Your task to perform on an android device: open app "Skype" (install if not already installed) and enter user name: "rumor@gmail.com" and password: "kinsman" Image 0: 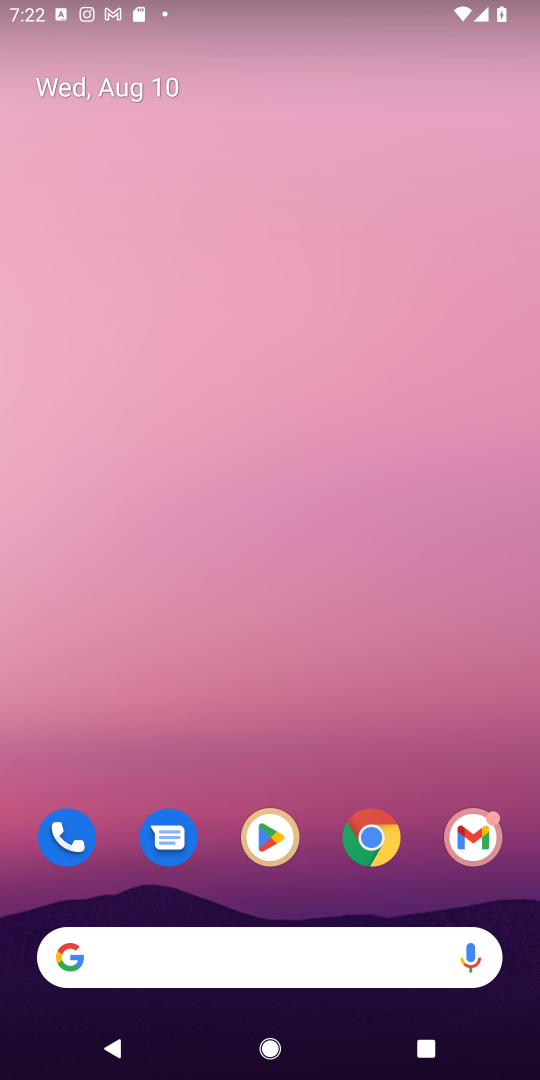
Step 0: press home button
Your task to perform on an android device: open app "Skype" (install if not already installed) and enter user name: "rumor@gmail.com" and password: "kinsman" Image 1: 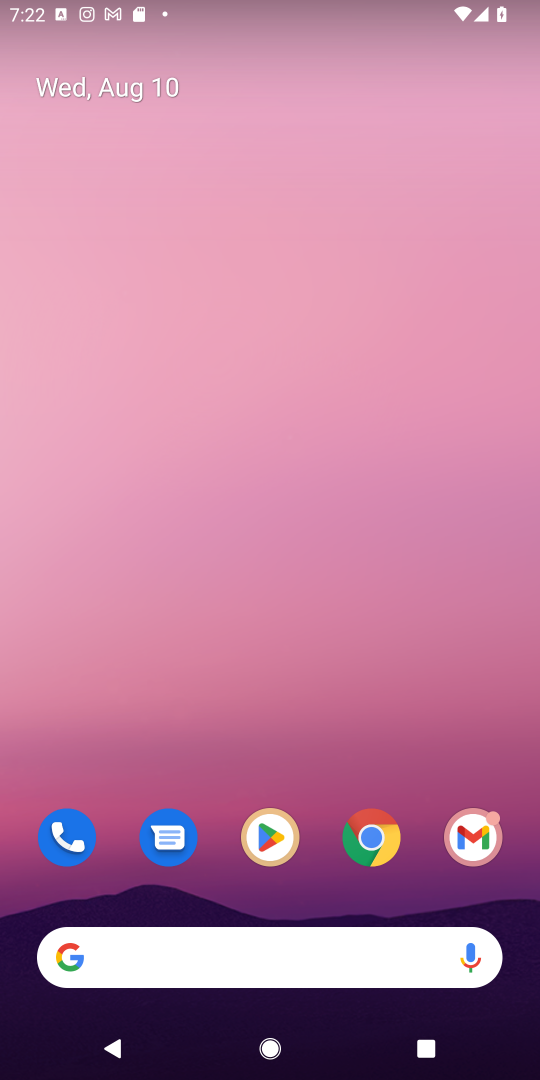
Step 1: click (261, 832)
Your task to perform on an android device: open app "Skype" (install if not already installed) and enter user name: "rumor@gmail.com" and password: "kinsman" Image 2: 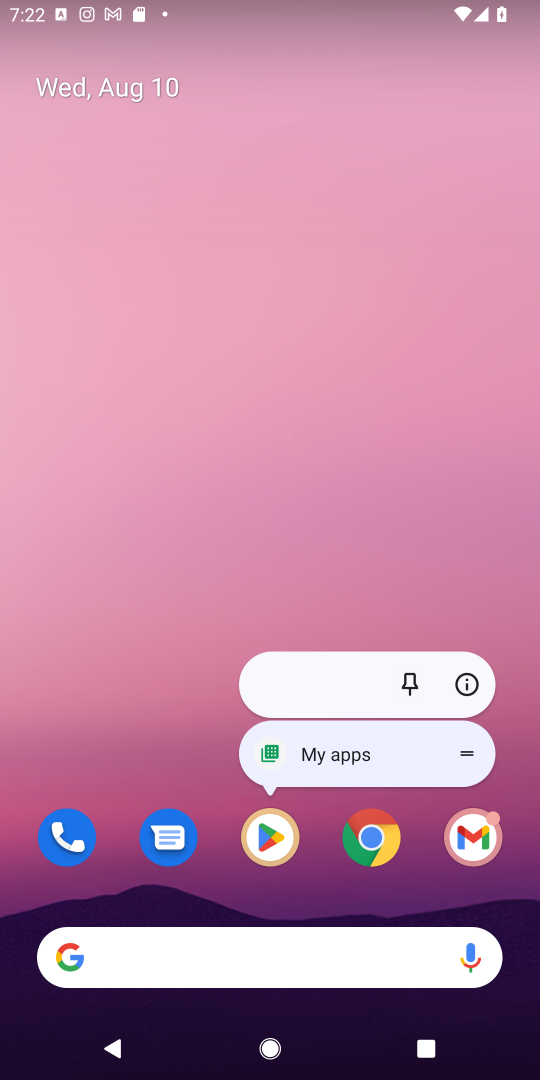
Step 2: click (261, 830)
Your task to perform on an android device: open app "Skype" (install if not already installed) and enter user name: "rumor@gmail.com" and password: "kinsman" Image 3: 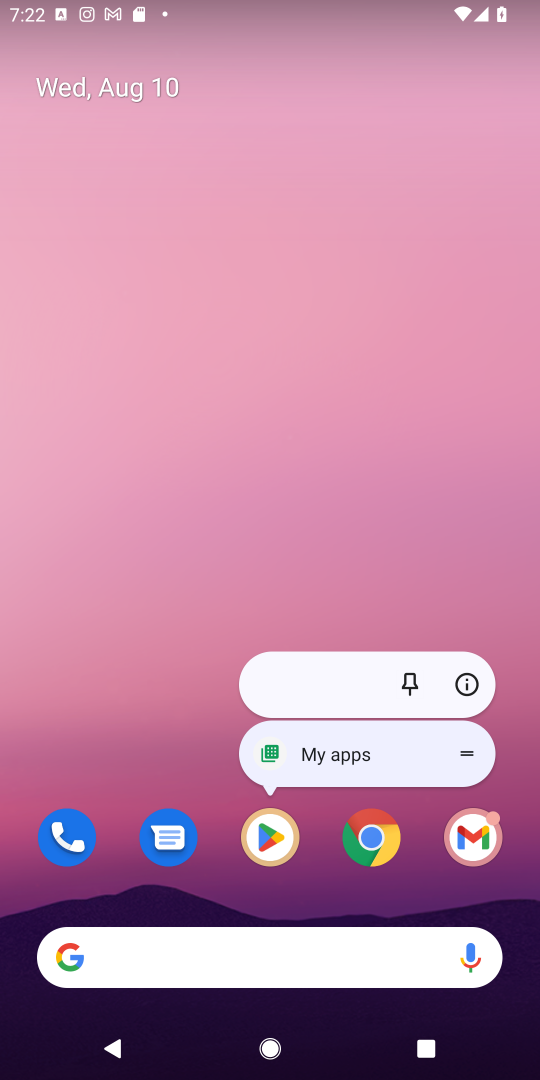
Step 3: click (270, 828)
Your task to perform on an android device: open app "Skype" (install if not already installed) and enter user name: "rumor@gmail.com" and password: "kinsman" Image 4: 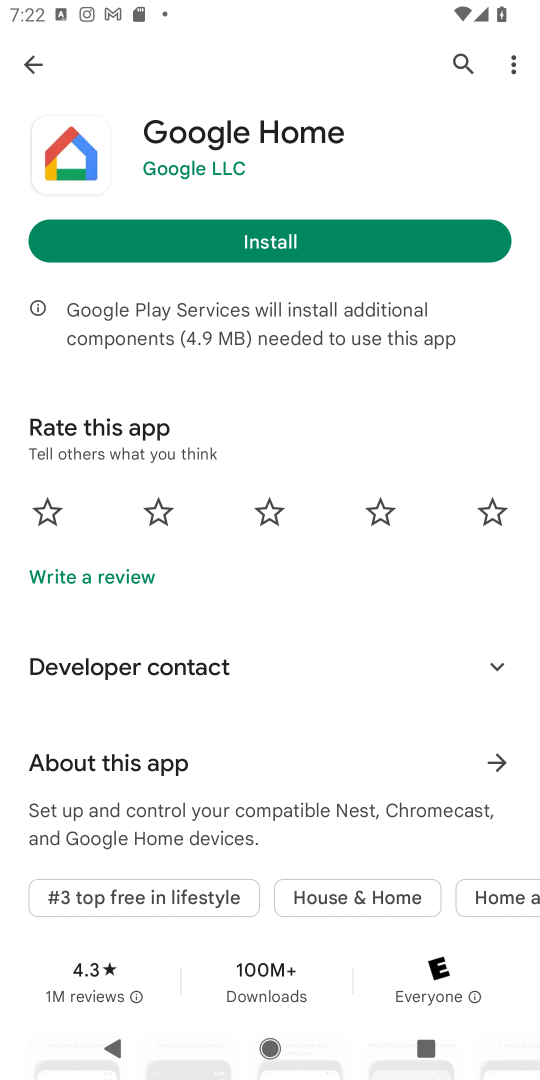
Step 4: click (456, 64)
Your task to perform on an android device: open app "Skype" (install if not already installed) and enter user name: "rumor@gmail.com" and password: "kinsman" Image 5: 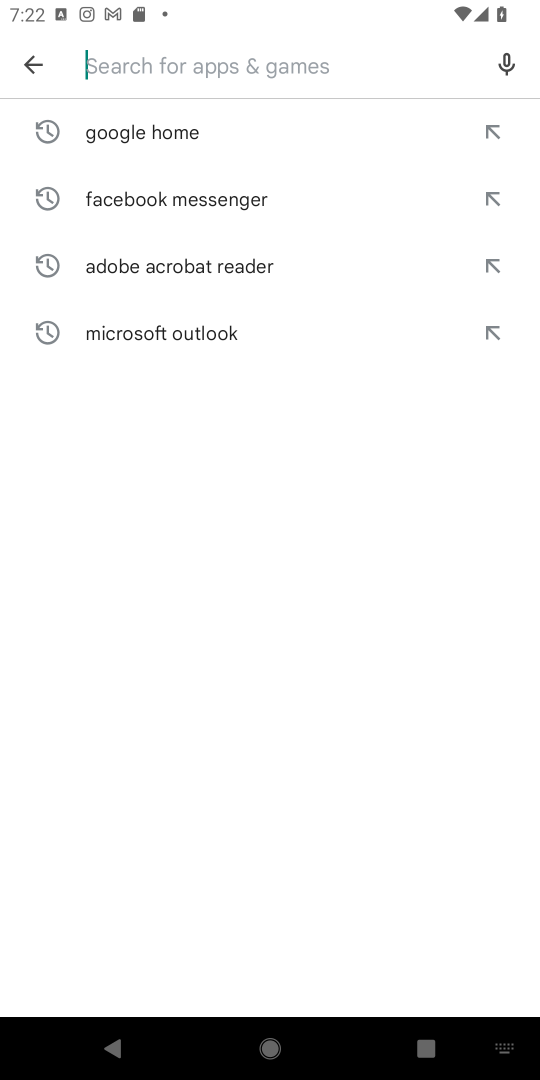
Step 5: type "Skype"
Your task to perform on an android device: open app "Skype" (install if not already installed) and enter user name: "rumor@gmail.com" and password: "kinsman" Image 6: 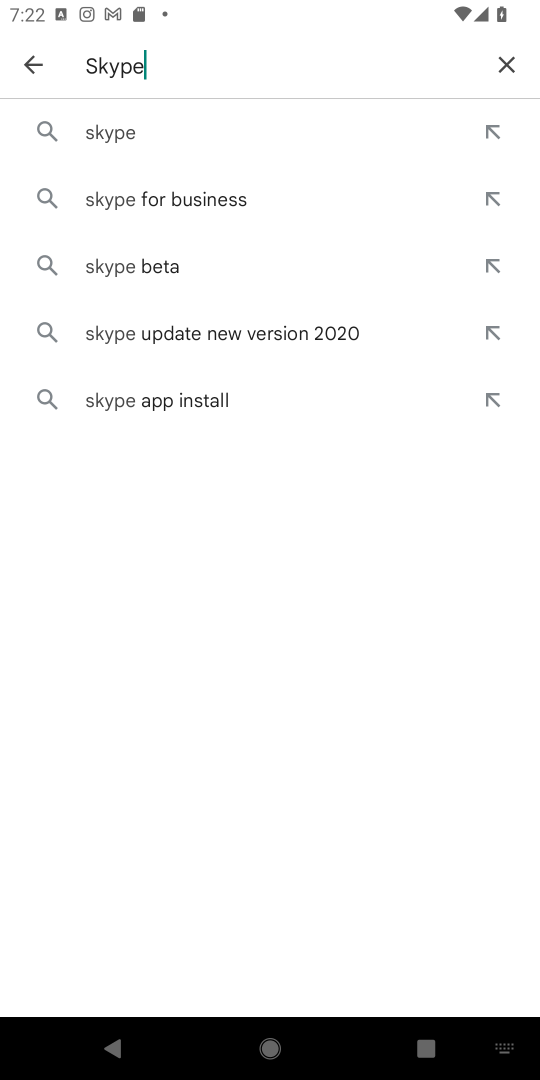
Step 6: click (136, 135)
Your task to perform on an android device: open app "Skype" (install if not already installed) and enter user name: "rumor@gmail.com" and password: "kinsman" Image 7: 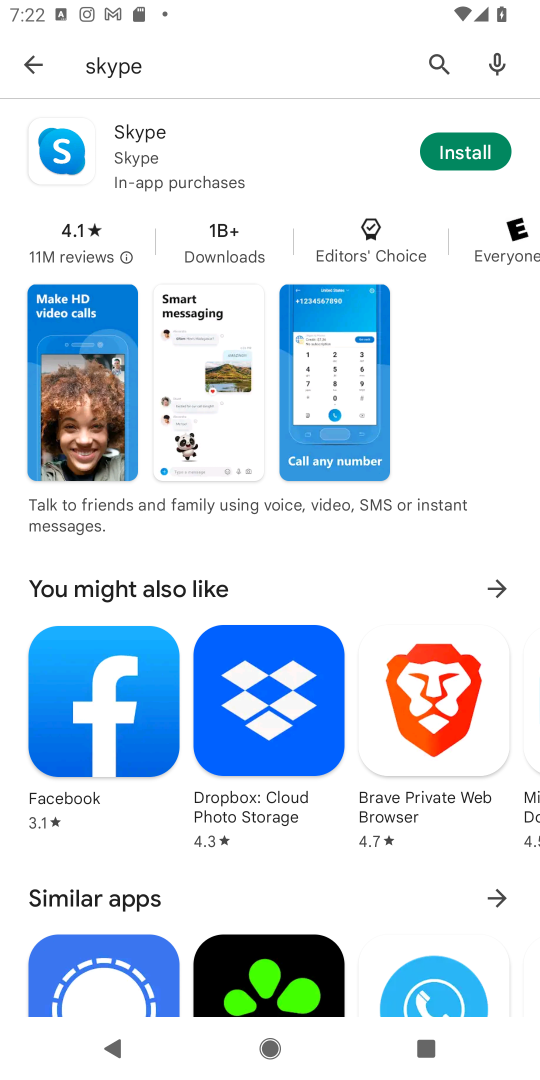
Step 7: click (483, 154)
Your task to perform on an android device: open app "Skype" (install if not already installed) and enter user name: "rumor@gmail.com" and password: "kinsman" Image 8: 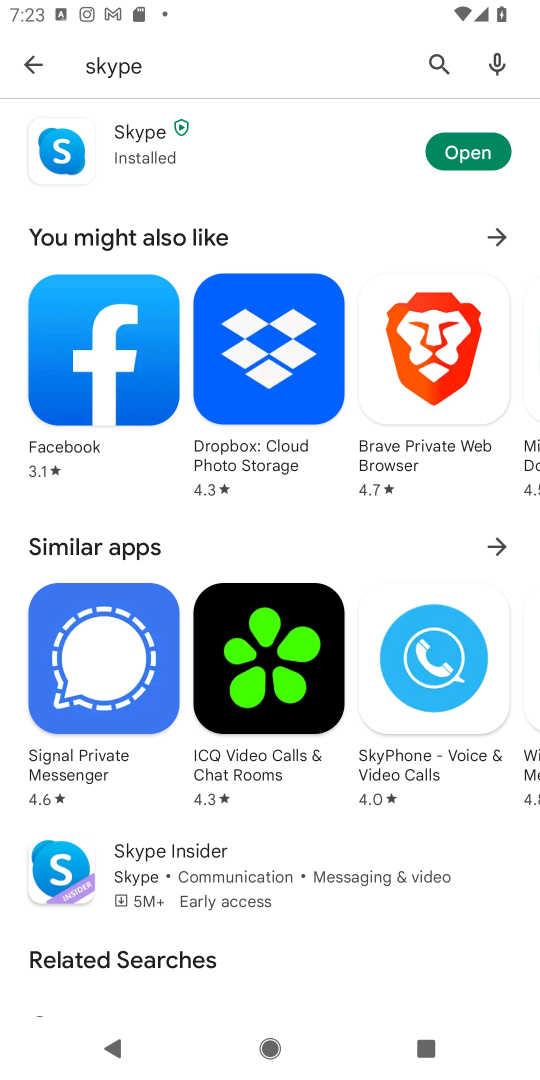
Step 8: click (461, 153)
Your task to perform on an android device: open app "Skype" (install if not already installed) and enter user name: "rumor@gmail.com" and password: "kinsman" Image 9: 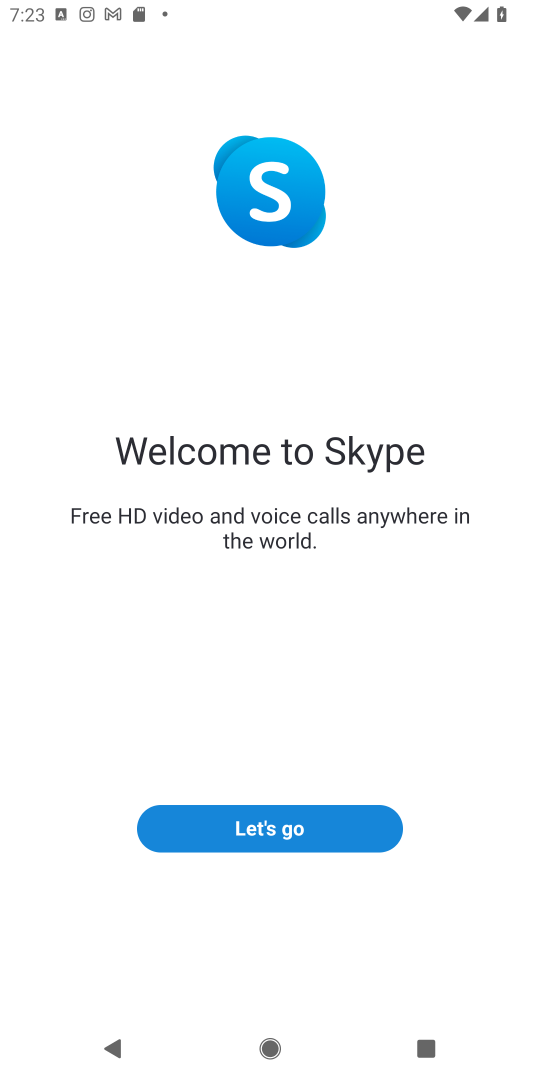
Step 9: click (272, 812)
Your task to perform on an android device: open app "Skype" (install if not already installed) and enter user name: "rumor@gmail.com" and password: "kinsman" Image 10: 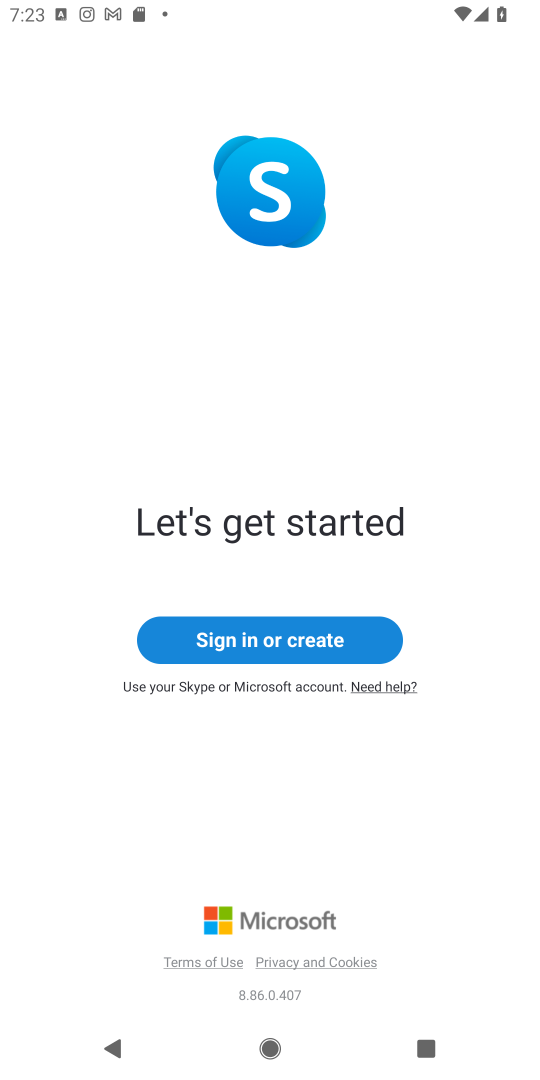
Step 10: click (292, 646)
Your task to perform on an android device: open app "Skype" (install if not already installed) and enter user name: "rumor@gmail.com" and password: "kinsman" Image 11: 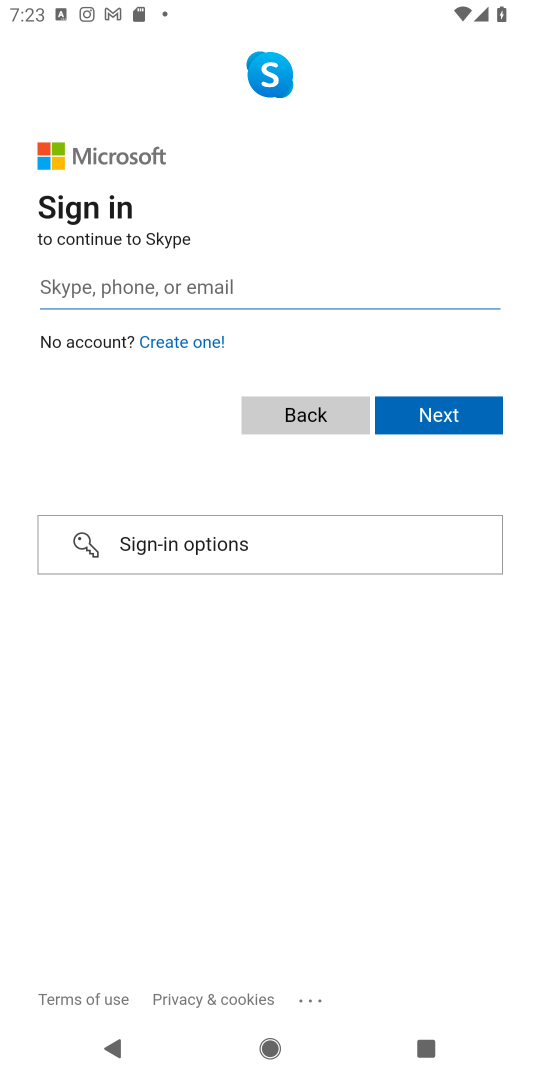
Step 11: click (95, 277)
Your task to perform on an android device: open app "Skype" (install if not already installed) and enter user name: "rumor@gmail.com" and password: "kinsman" Image 12: 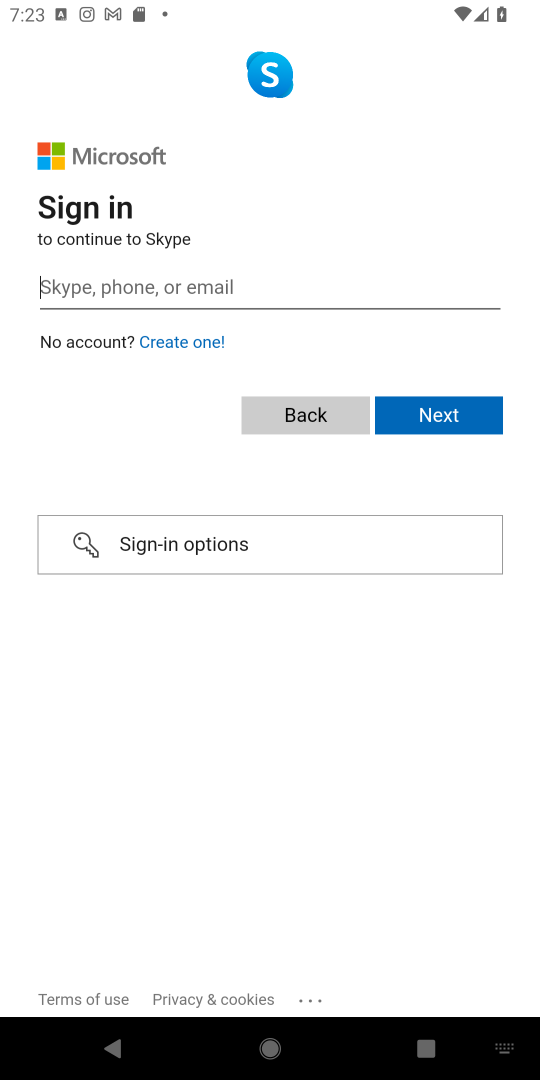
Step 12: type "rumor@gmail.com"
Your task to perform on an android device: open app "Skype" (install if not already installed) and enter user name: "rumor@gmail.com" and password: "kinsman" Image 13: 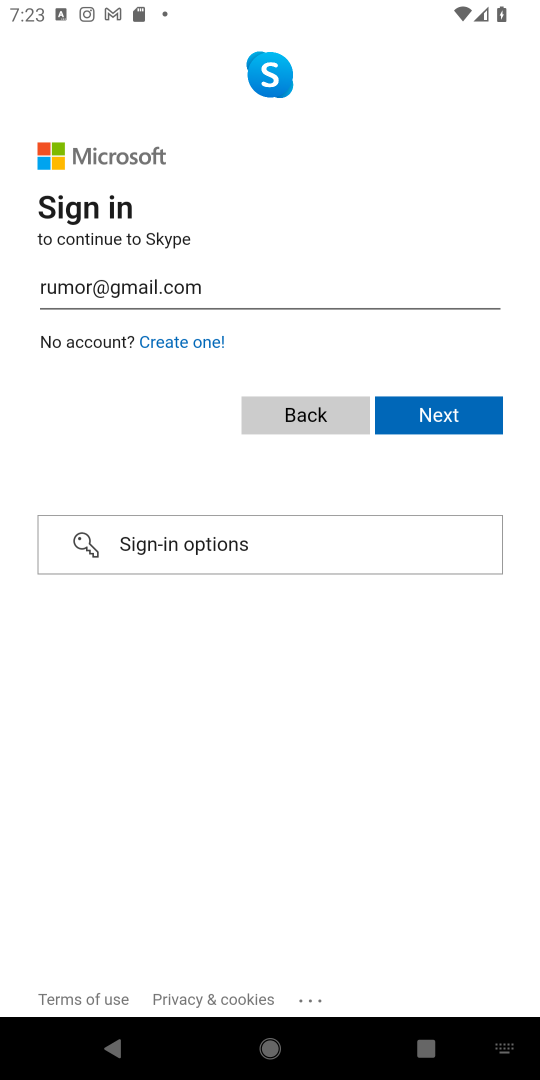
Step 13: click (440, 414)
Your task to perform on an android device: open app "Skype" (install if not already installed) and enter user name: "rumor@gmail.com" and password: "kinsman" Image 14: 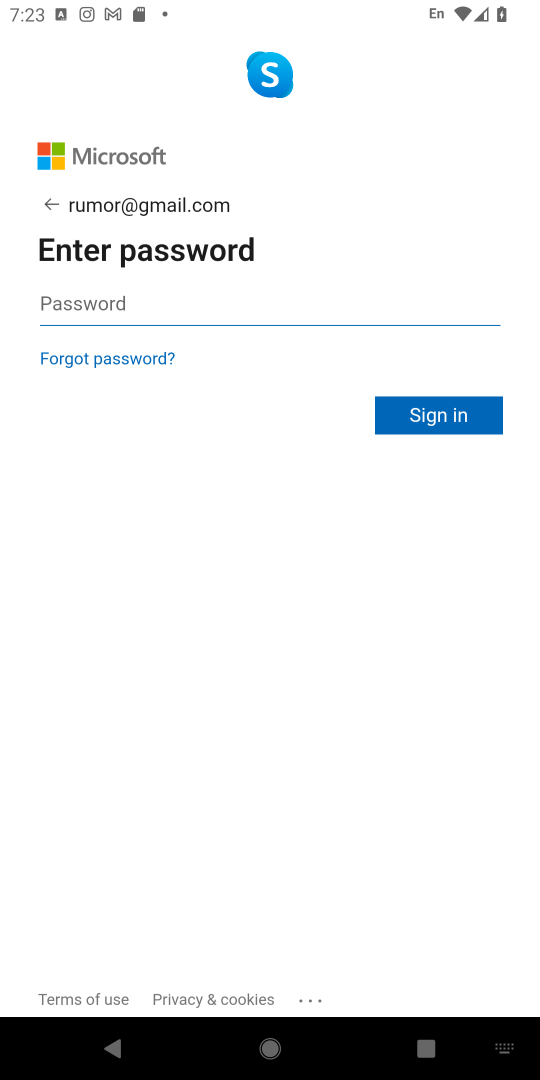
Step 14: type "kinsman"
Your task to perform on an android device: open app "Skype" (install if not already installed) and enter user name: "rumor@gmail.com" and password: "kinsman" Image 15: 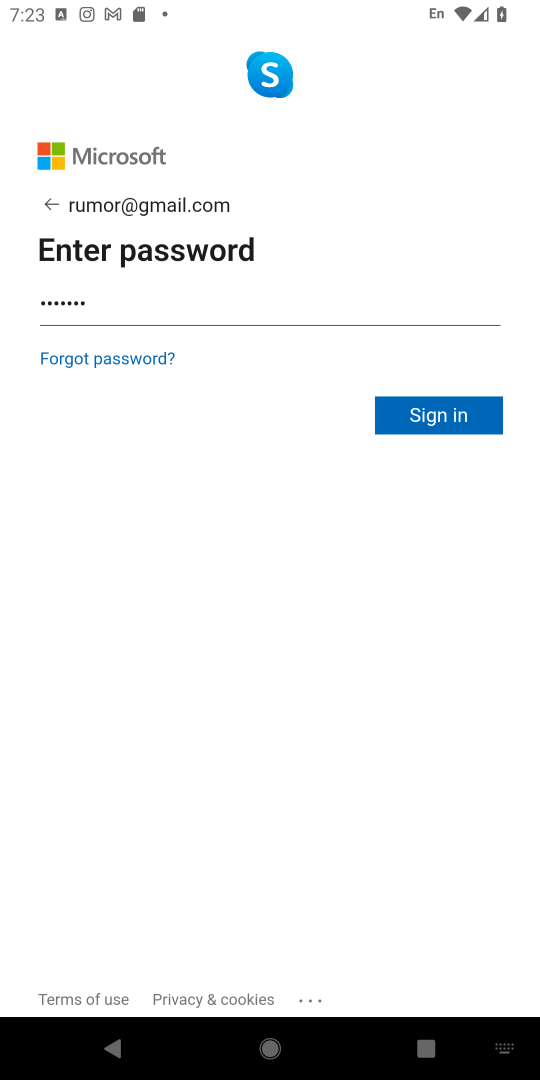
Step 15: task complete